Your task to perform on an android device: clear history in the chrome app Image 0: 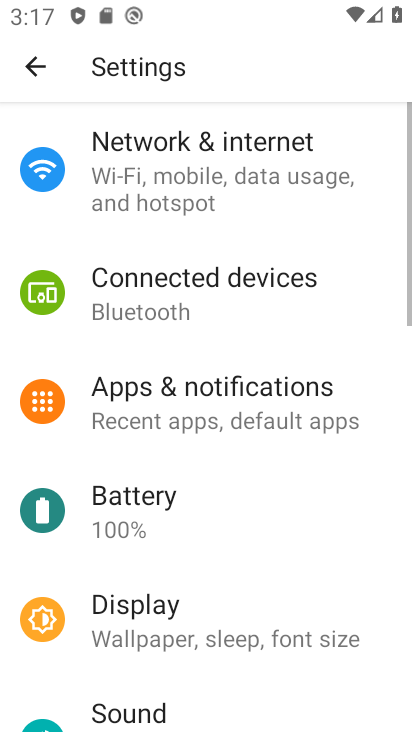
Step 0: press home button
Your task to perform on an android device: clear history in the chrome app Image 1: 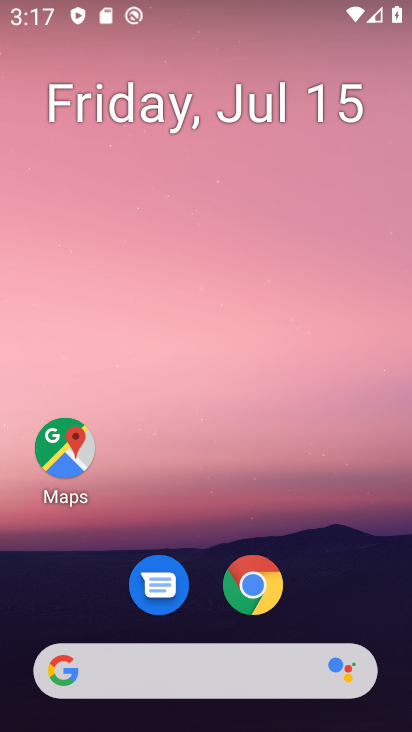
Step 1: click (239, 586)
Your task to perform on an android device: clear history in the chrome app Image 2: 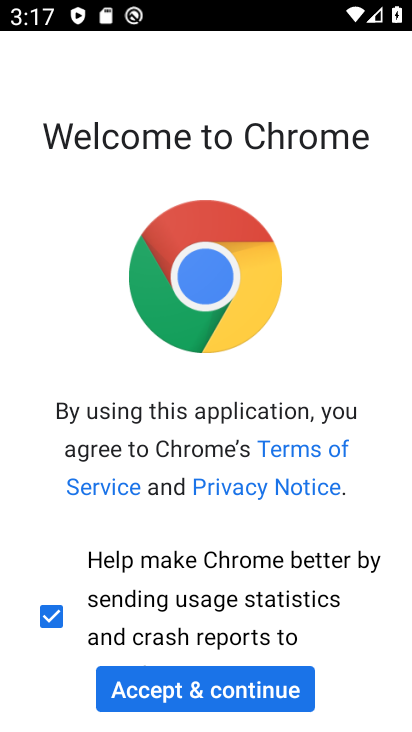
Step 2: click (219, 671)
Your task to perform on an android device: clear history in the chrome app Image 3: 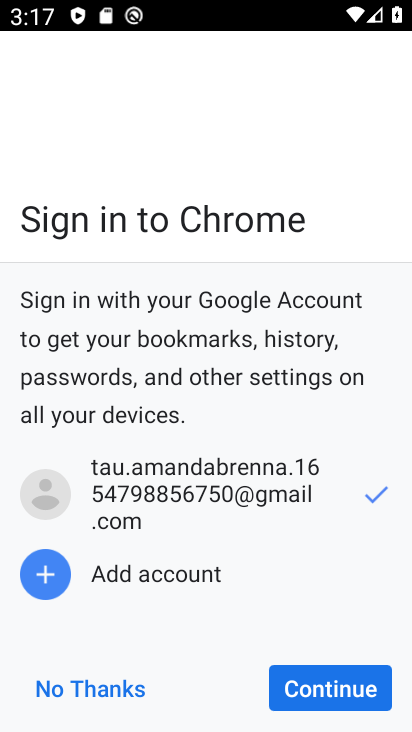
Step 3: click (329, 689)
Your task to perform on an android device: clear history in the chrome app Image 4: 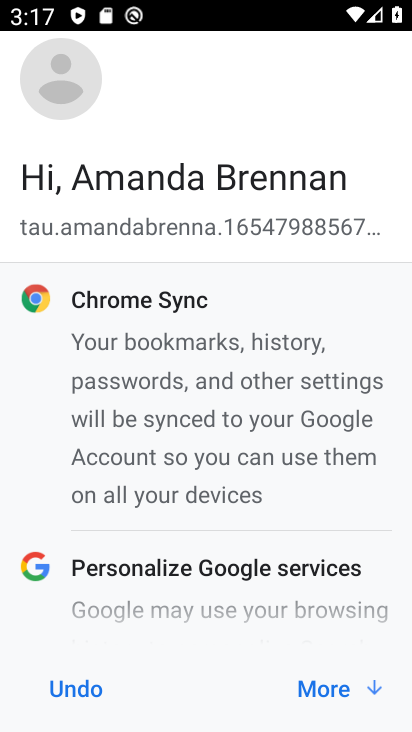
Step 4: click (323, 690)
Your task to perform on an android device: clear history in the chrome app Image 5: 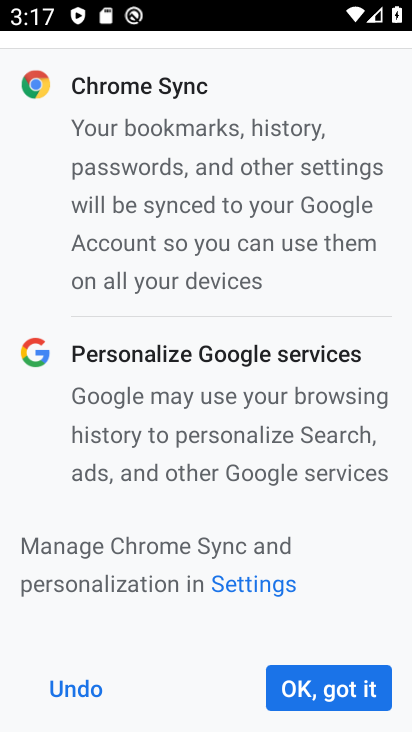
Step 5: click (341, 684)
Your task to perform on an android device: clear history in the chrome app Image 6: 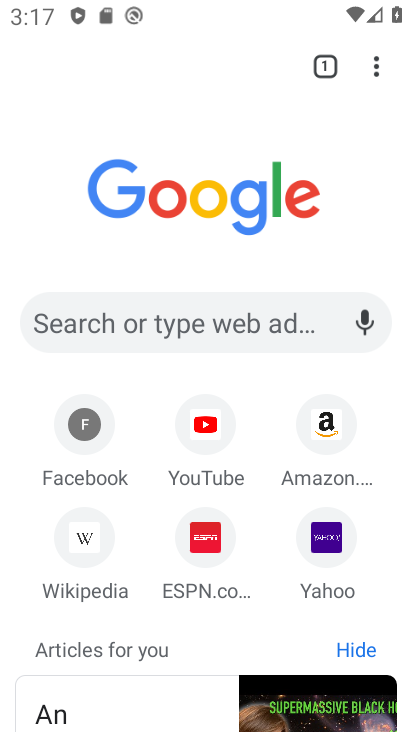
Step 6: task complete